Your task to perform on an android device: choose inbox layout in the gmail app Image 0: 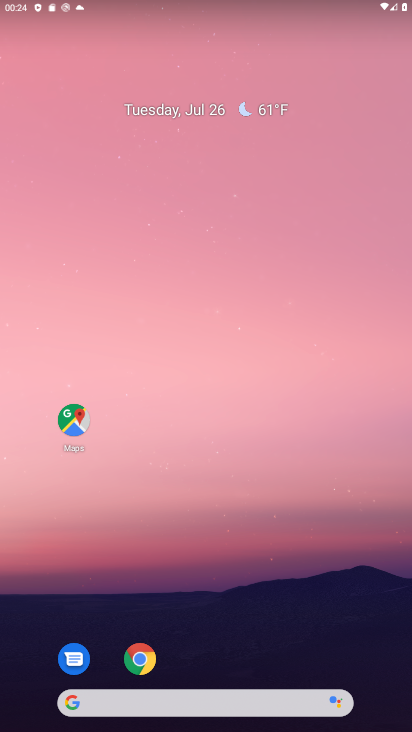
Step 0: drag from (309, 611) to (215, 130)
Your task to perform on an android device: choose inbox layout in the gmail app Image 1: 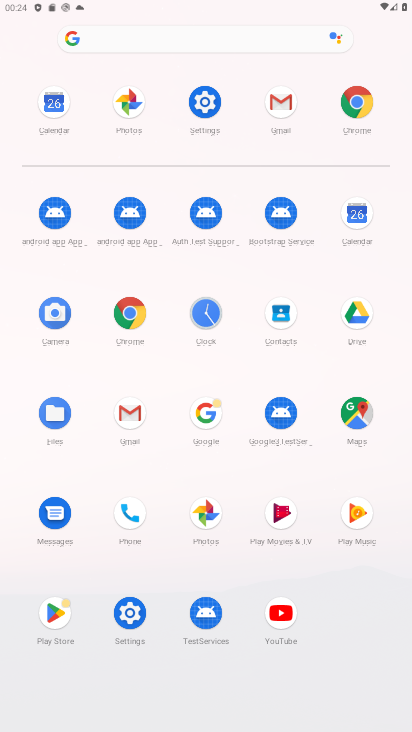
Step 1: click (276, 103)
Your task to perform on an android device: choose inbox layout in the gmail app Image 2: 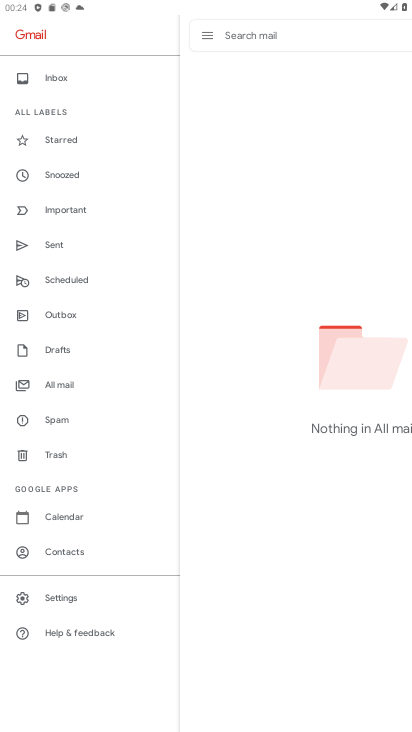
Step 2: click (64, 602)
Your task to perform on an android device: choose inbox layout in the gmail app Image 3: 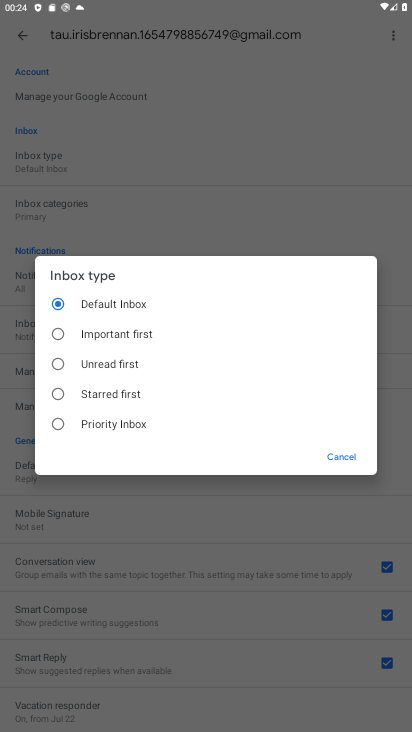
Step 3: task complete